Your task to perform on an android device: clear history in the chrome app Image 0: 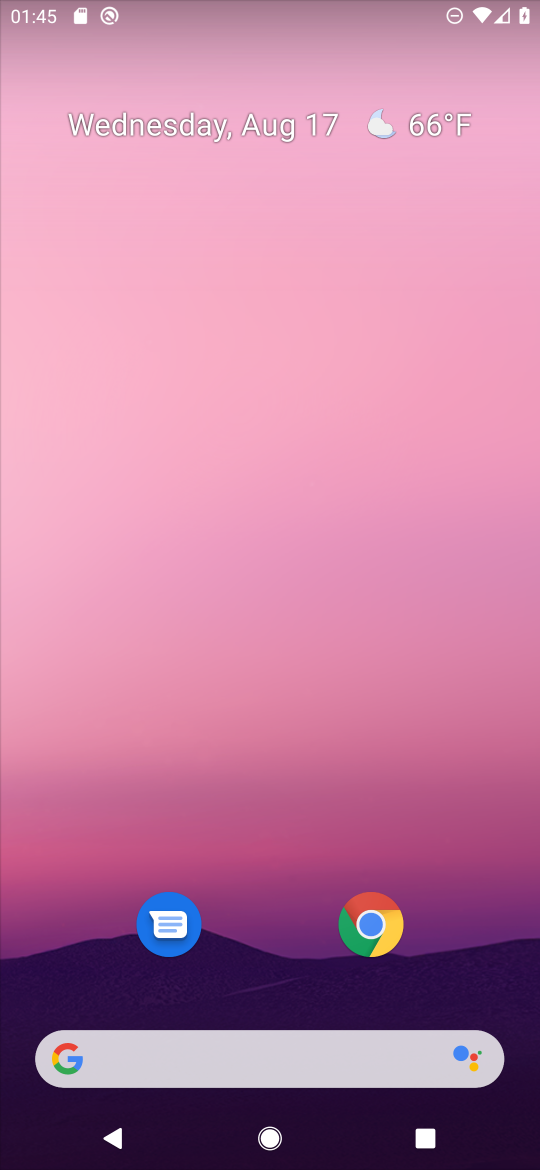
Step 0: click (370, 943)
Your task to perform on an android device: clear history in the chrome app Image 1: 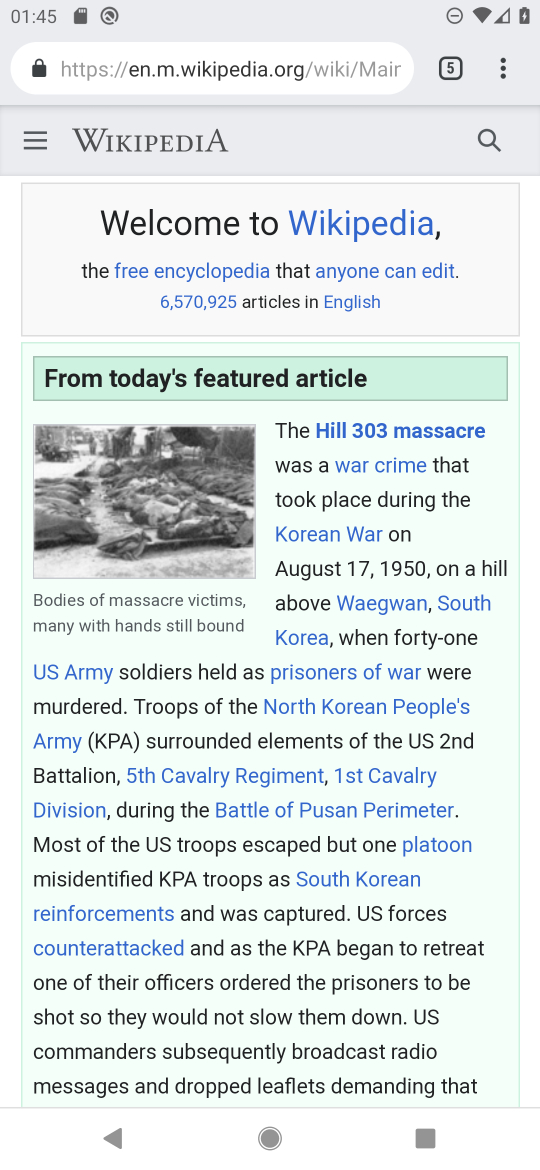
Step 1: click (516, 63)
Your task to perform on an android device: clear history in the chrome app Image 2: 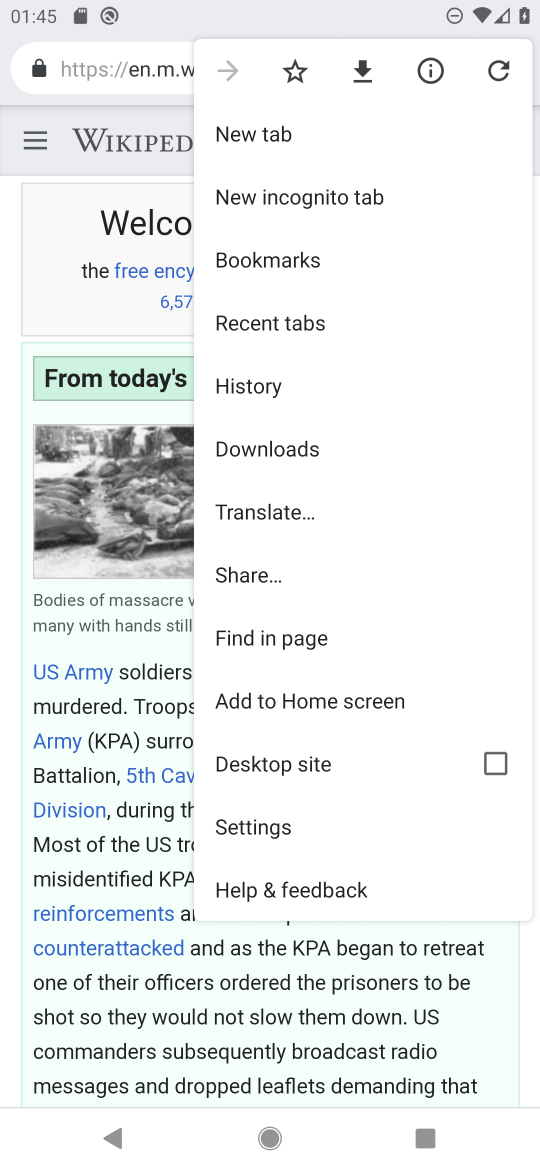
Step 2: click (284, 408)
Your task to perform on an android device: clear history in the chrome app Image 3: 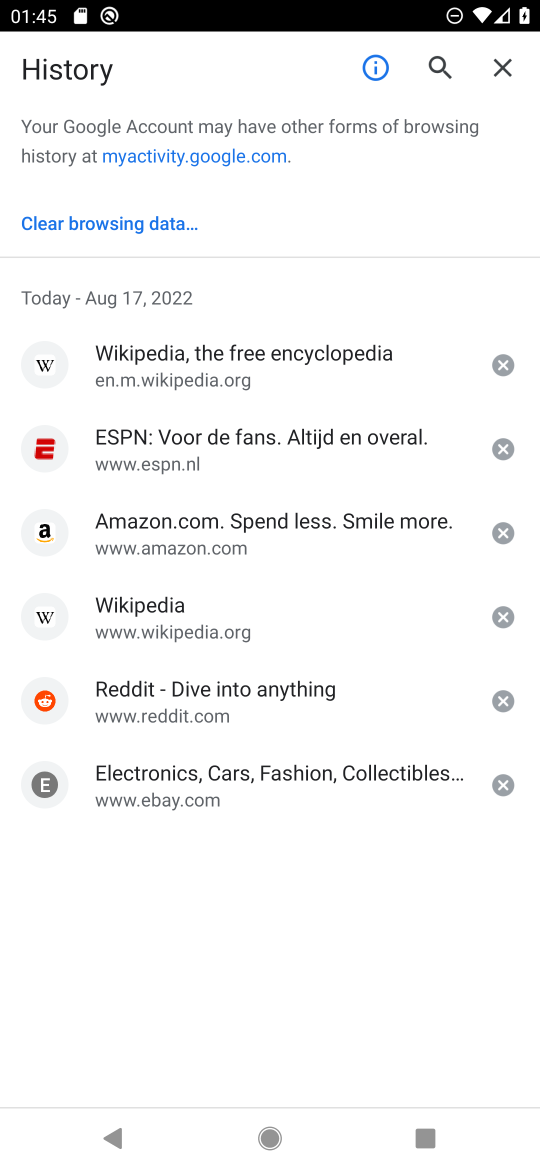
Step 3: click (141, 228)
Your task to perform on an android device: clear history in the chrome app Image 4: 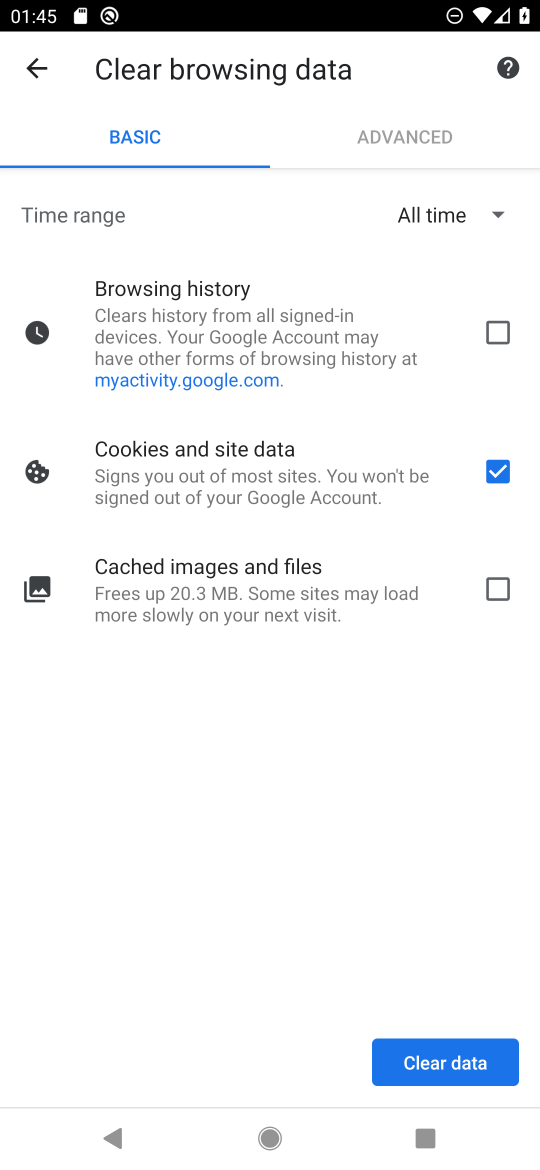
Step 4: click (500, 334)
Your task to perform on an android device: clear history in the chrome app Image 5: 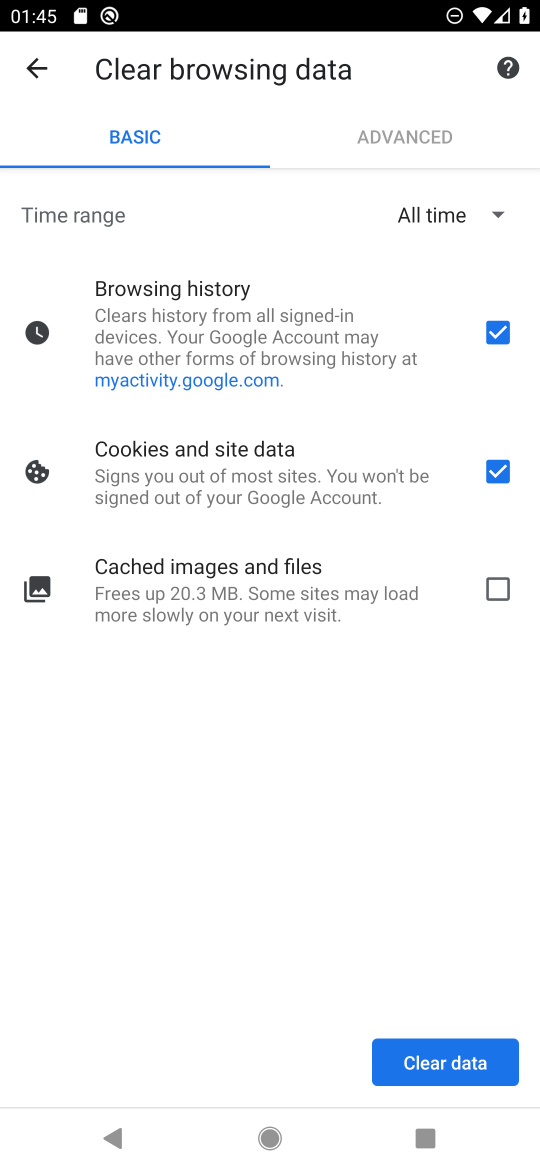
Step 5: click (494, 584)
Your task to perform on an android device: clear history in the chrome app Image 6: 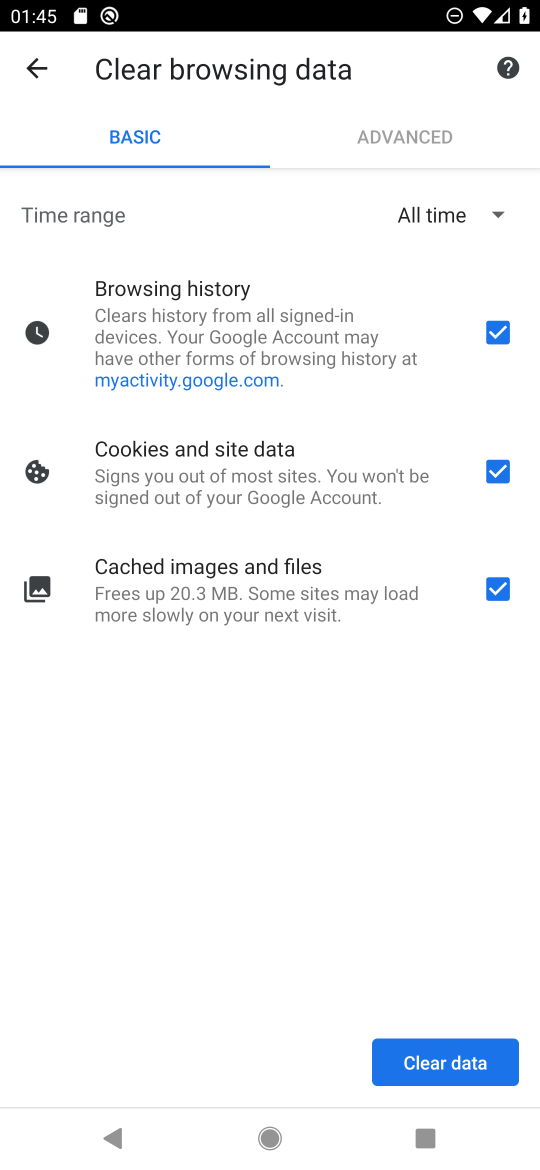
Step 6: click (434, 1080)
Your task to perform on an android device: clear history in the chrome app Image 7: 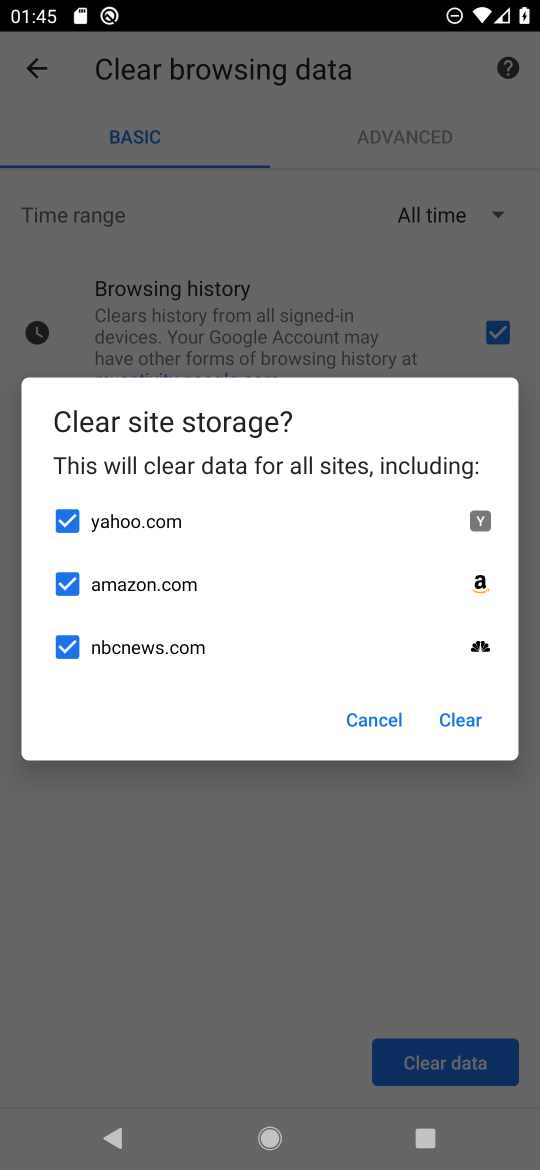
Step 7: click (466, 719)
Your task to perform on an android device: clear history in the chrome app Image 8: 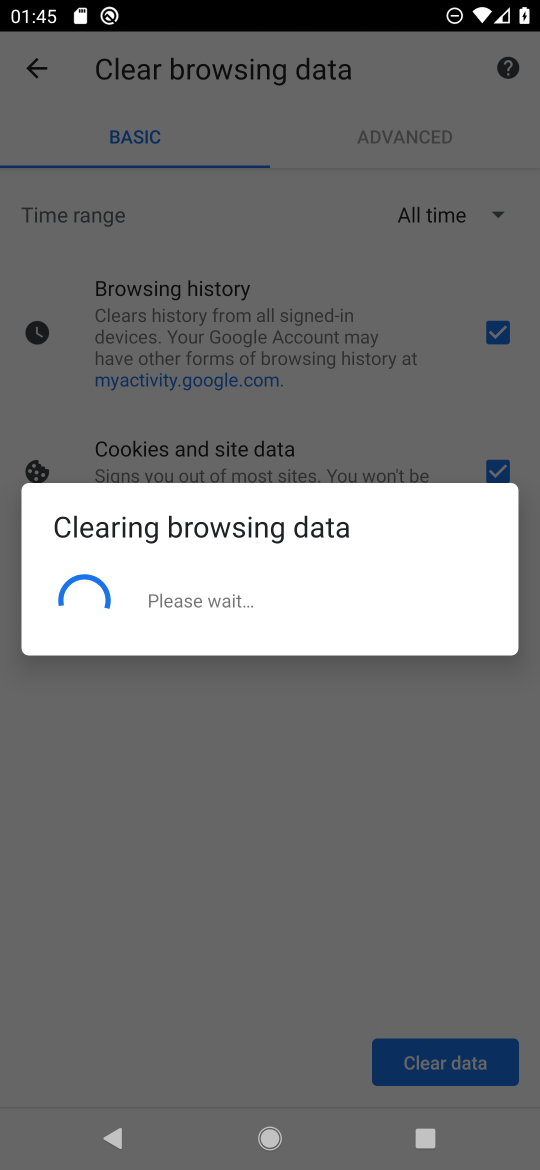
Step 8: task complete